Your task to perform on an android device: turn off location history Image 0: 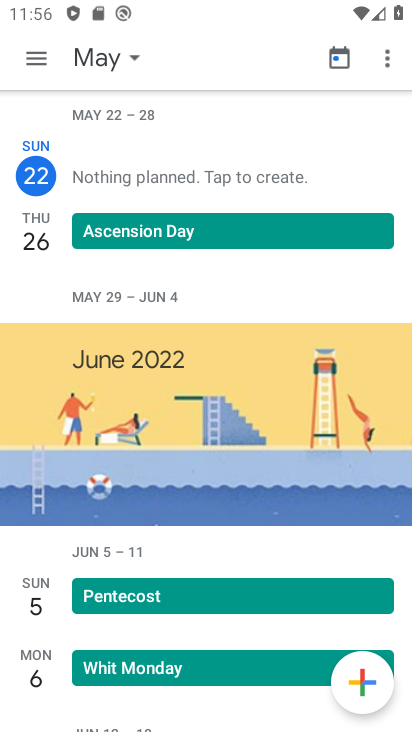
Step 0: press home button
Your task to perform on an android device: turn off location history Image 1: 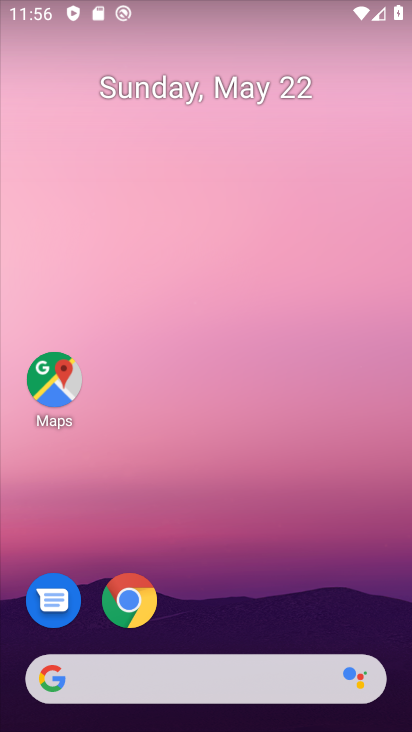
Step 1: drag from (333, 511) to (320, 88)
Your task to perform on an android device: turn off location history Image 2: 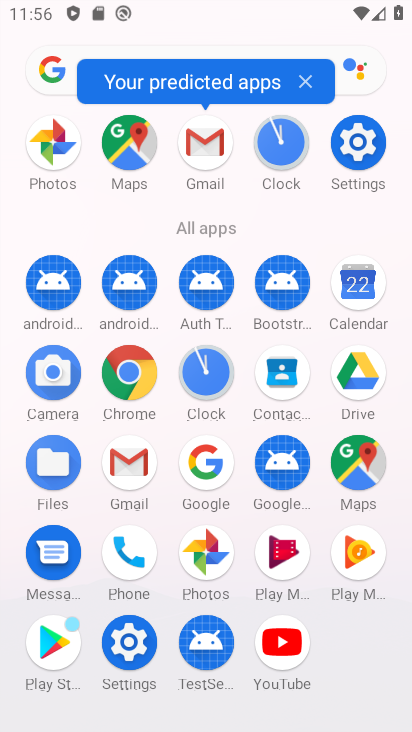
Step 2: click (342, 155)
Your task to perform on an android device: turn off location history Image 3: 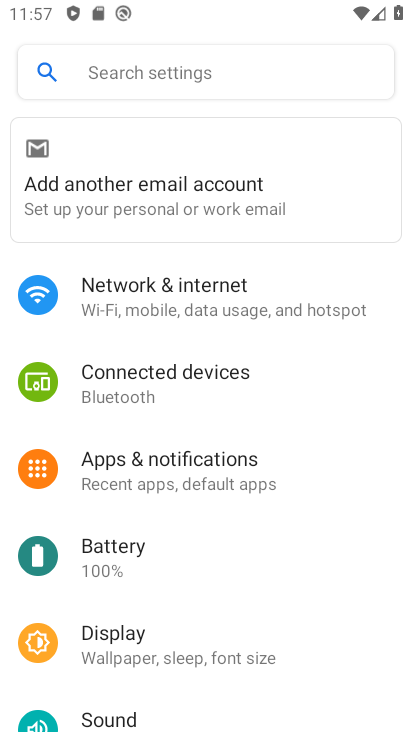
Step 3: drag from (256, 594) to (259, 221)
Your task to perform on an android device: turn off location history Image 4: 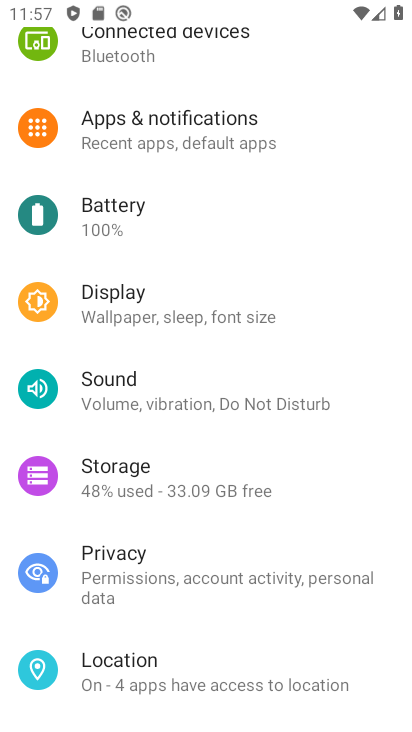
Step 4: drag from (196, 578) to (247, 111)
Your task to perform on an android device: turn off location history Image 5: 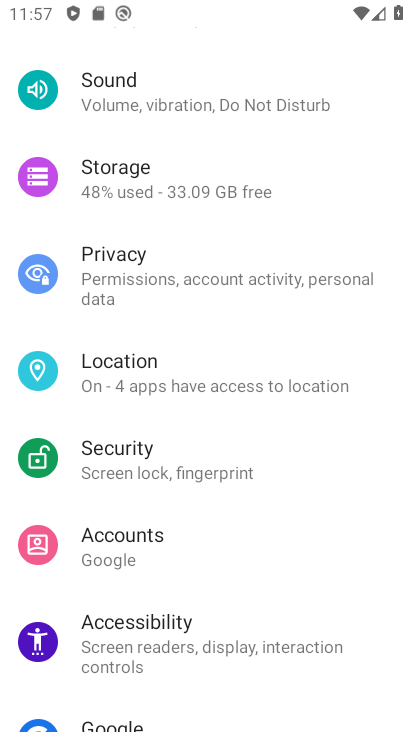
Step 5: click (172, 387)
Your task to perform on an android device: turn off location history Image 6: 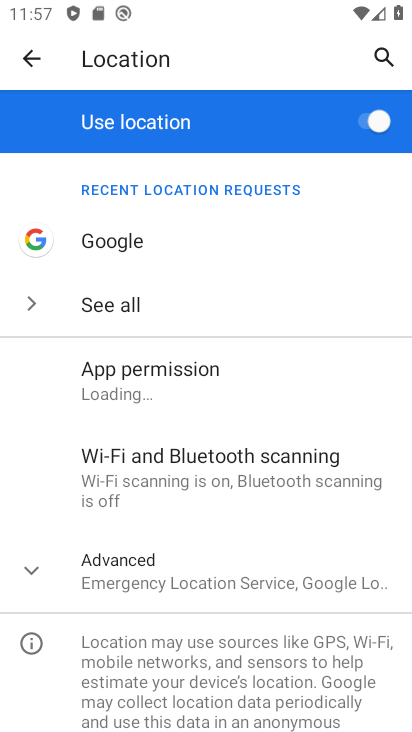
Step 6: drag from (250, 583) to (300, 199)
Your task to perform on an android device: turn off location history Image 7: 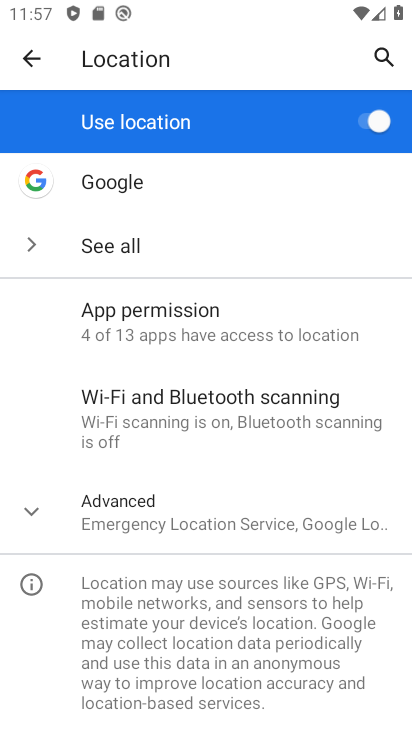
Step 7: click (221, 514)
Your task to perform on an android device: turn off location history Image 8: 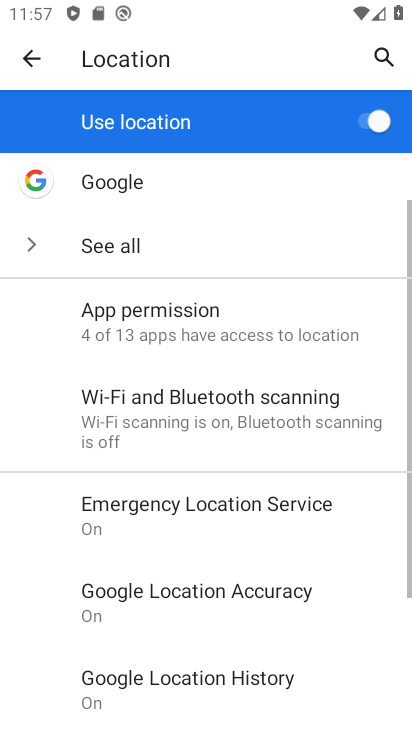
Step 8: drag from (183, 559) to (169, 267)
Your task to perform on an android device: turn off location history Image 9: 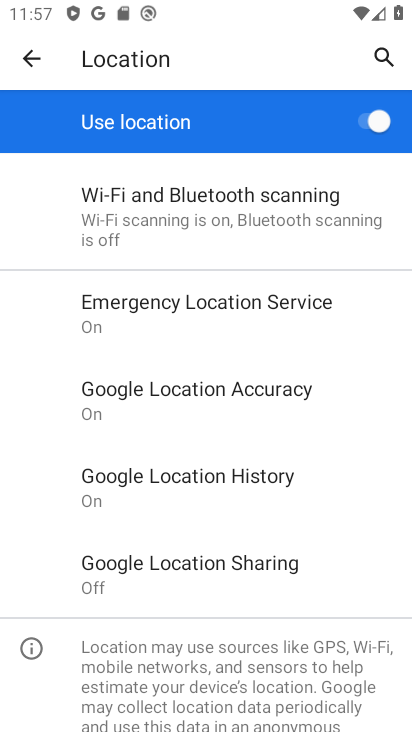
Step 9: click (230, 477)
Your task to perform on an android device: turn off location history Image 10: 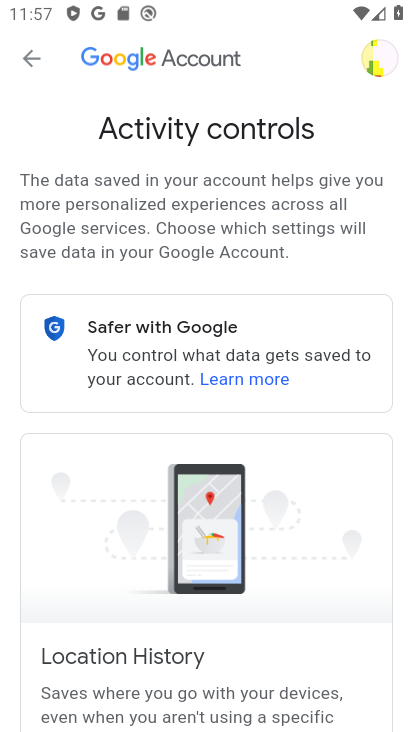
Step 10: drag from (255, 554) to (270, 174)
Your task to perform on an android device: turn off location history Image 11: 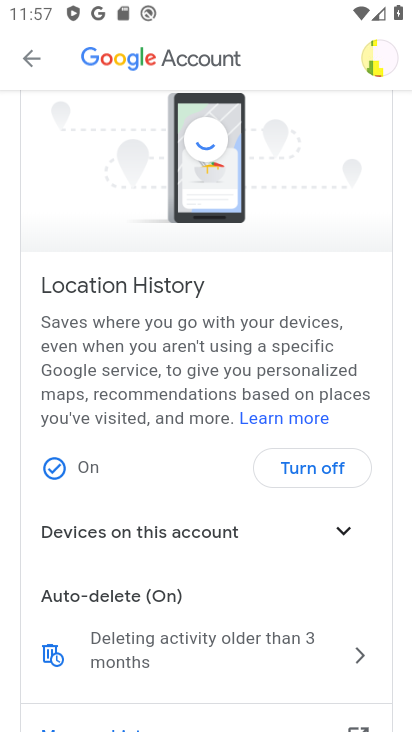
Step 11: drag from (263, 543) to (273, 265)
Your task to perform on an android device: turn off location history Image 12: 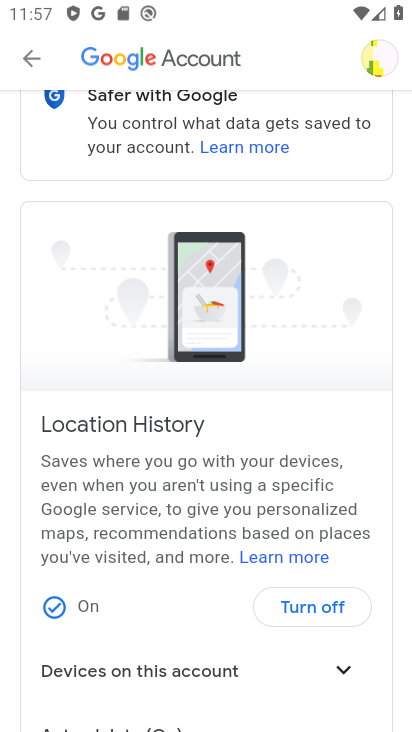
Step 12: drag from (274, 398) to (275, 331)
Your task to perform on an android device: turn off location history Image 13: 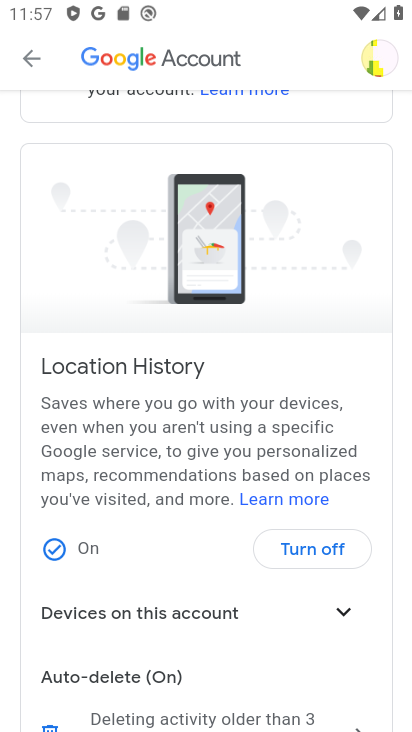
Step 13: click (316, 548)
Your task to perform on an android device: turn off location history Image 14: 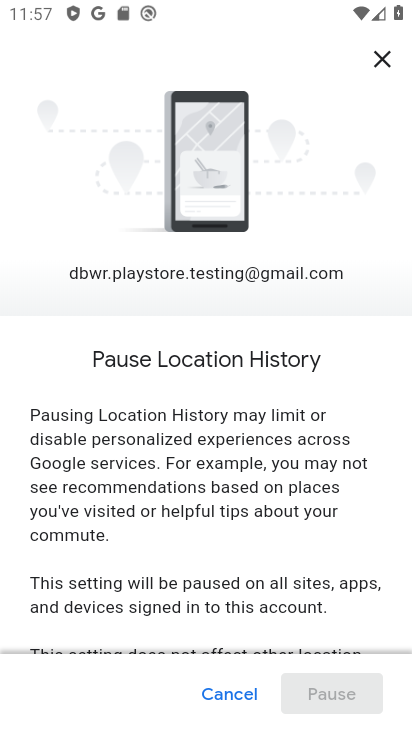
Step 14: drag from (292, 213) to (265, 167)
Your task to perform on an android device: turn off location history Image 15: 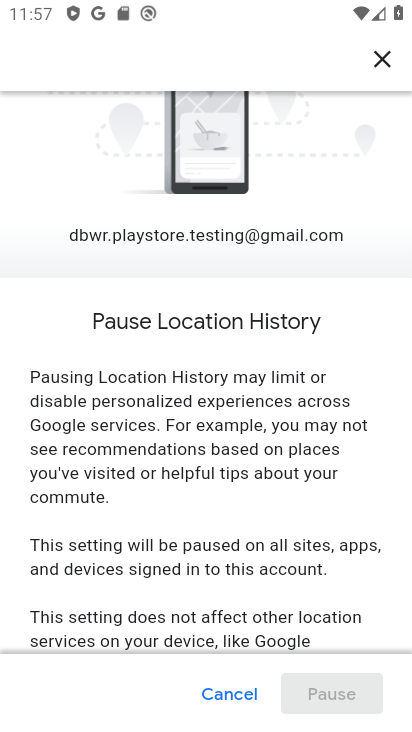
Step 15: drag from (275, 583) to (256, 197)
Your task to perform on an android device: turn off location history Image 16: 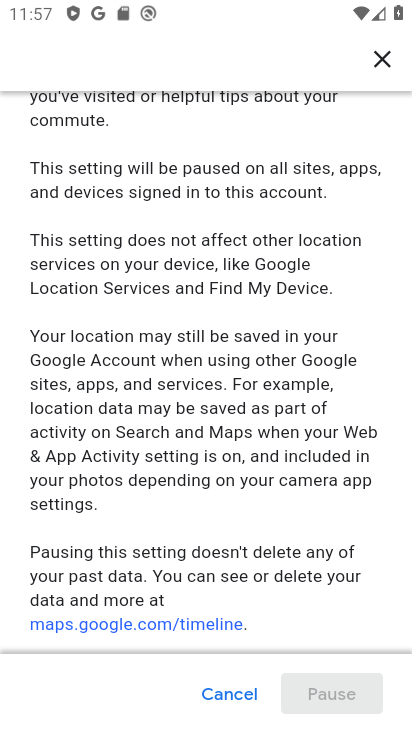
Step 16: drag from (276, 585) to (334, 263)
Your task to perform on an android device: turn off location history Image 17: 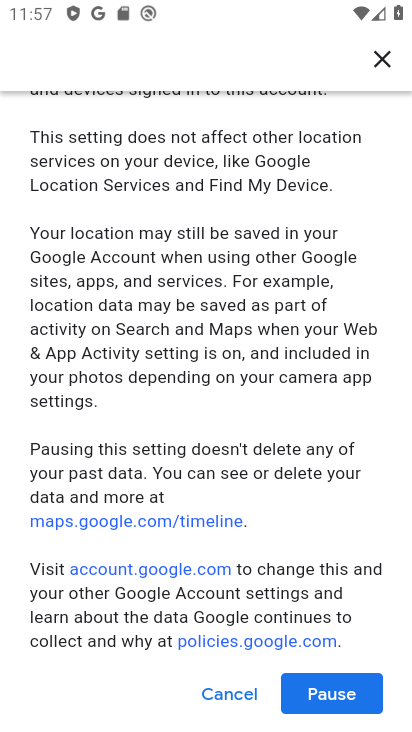
Step 17: click (358, 694)
Your task to perform on an android device: turn off location history Image 18: 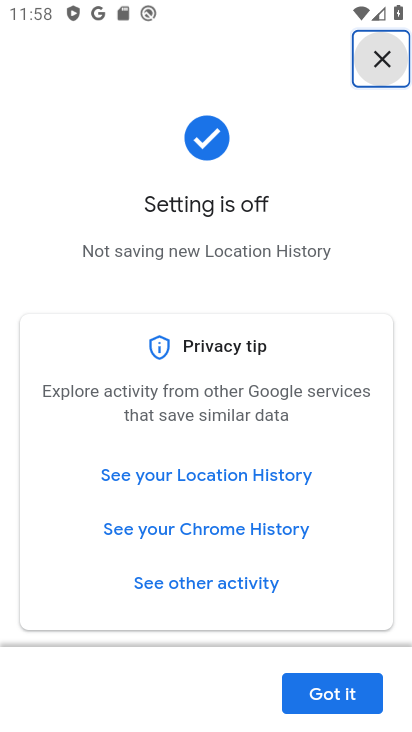
Step 18: click (364, 687)
Your task to perform on an android device: turn off location history Image 19: 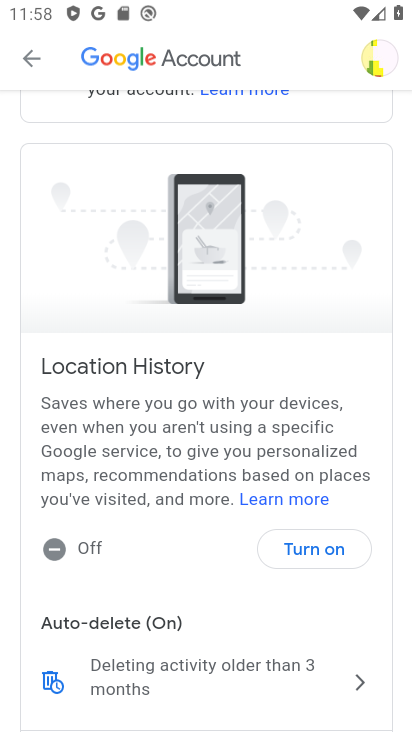
Step 19: task complete